Your task to perform on an android device: Open CNN.com Image 0: 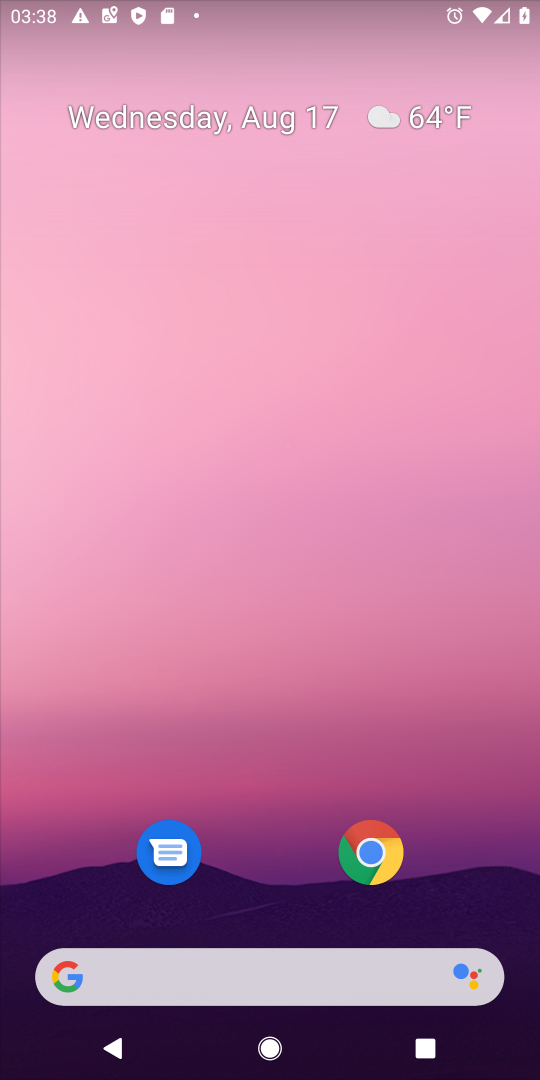
Step 0: drag from (237, 854) to (230, 121)
Your task to perform on an android device: Open CNN.com Image 1: 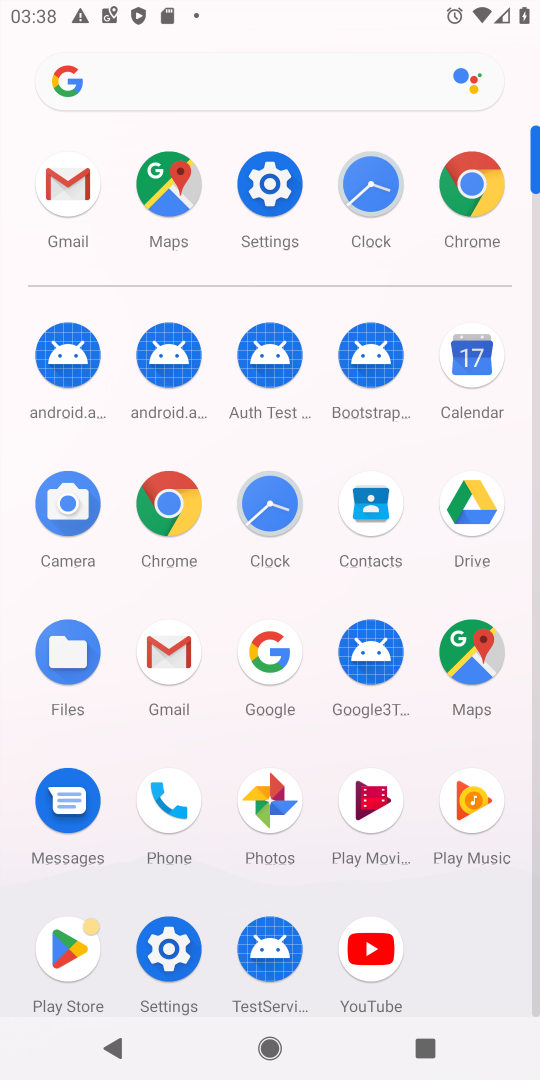
Step 1: click (176, 504)
Your task to perform on an android device: Open CNN.com Image 2: 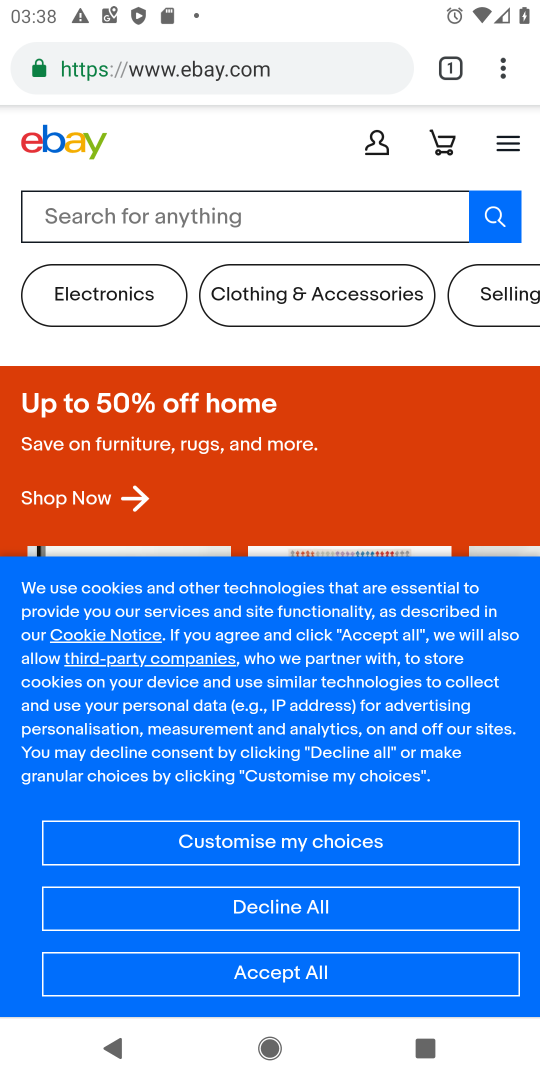
Step 2: click (263, 71)
Your task to perform on an android device: Open CNN.com Image 3: 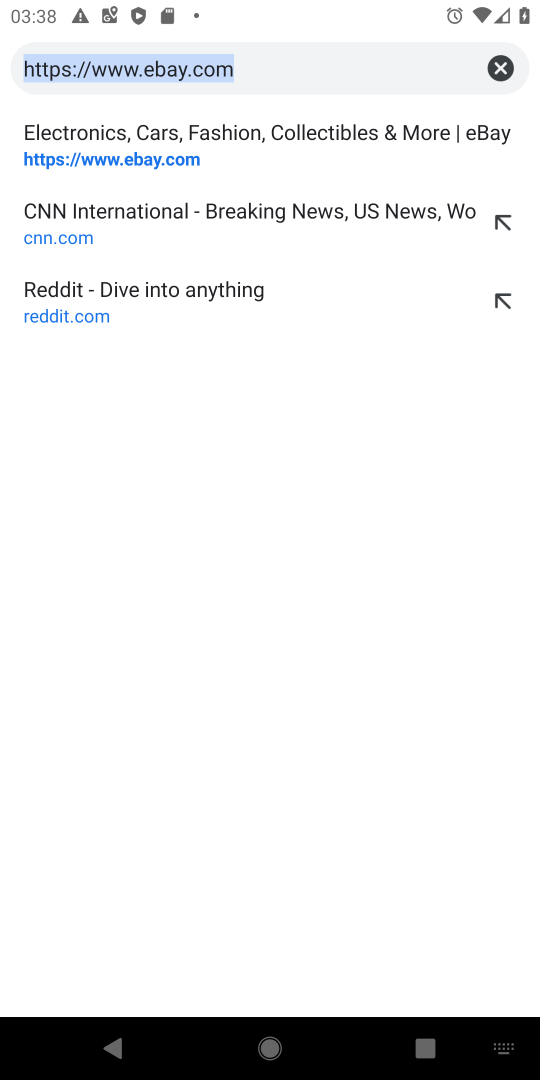
Step 3: click (20, 233)
Your task to perform on an android device: Open CNN.com Image 4: 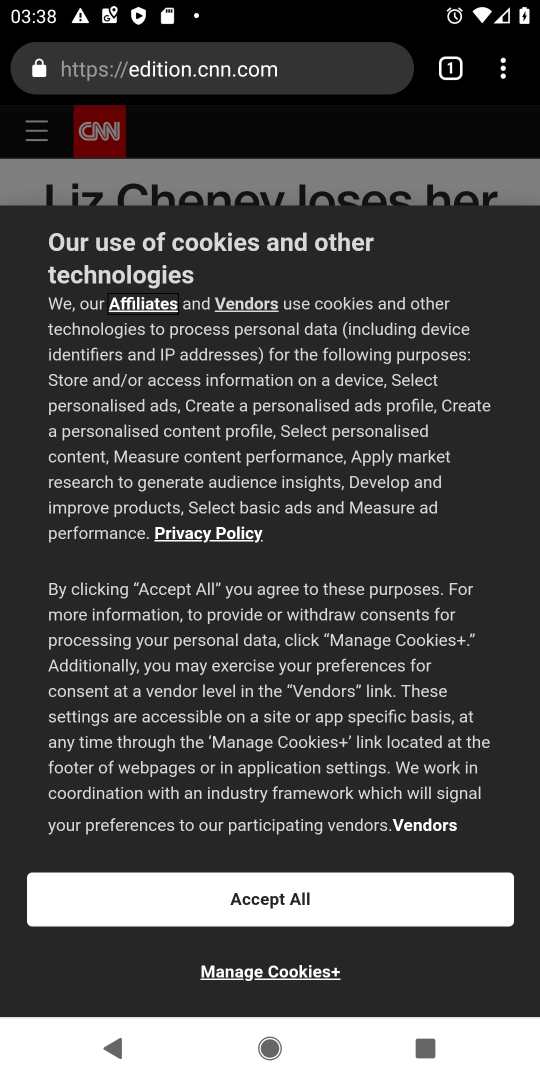
Step 4: task complete